Your task to perform on an android device: stop showing notifications on the lock screen Image 0: 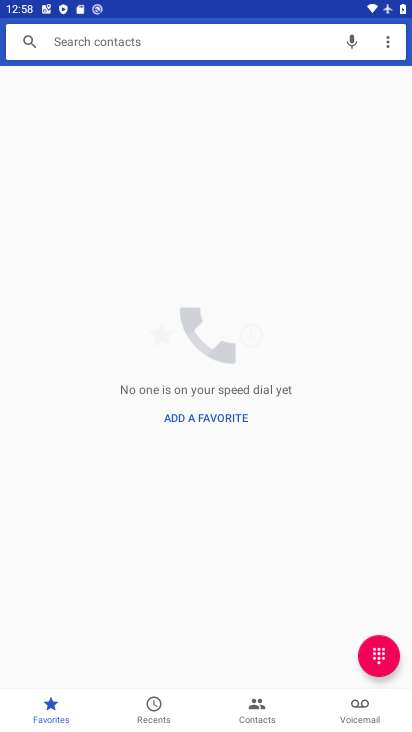
Step 0: press home button
Your task to perform on an android device: stop showing notifications on the lock screen Image 1: 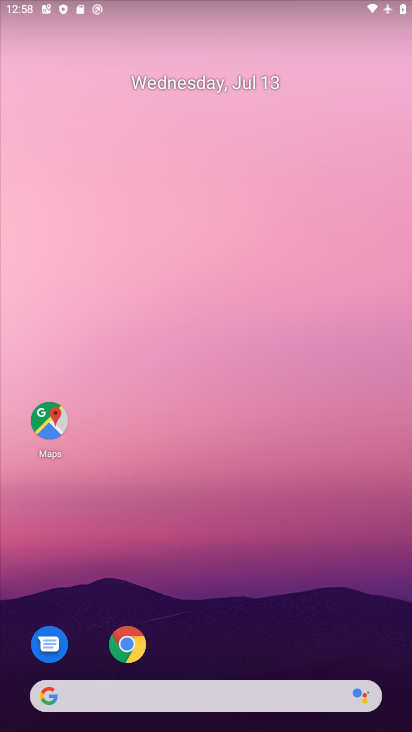
Step 1: drag from (304, 635) to (239, 145)
Your task to perform on an android device: stop showing notifications on the lock screen Image 2: 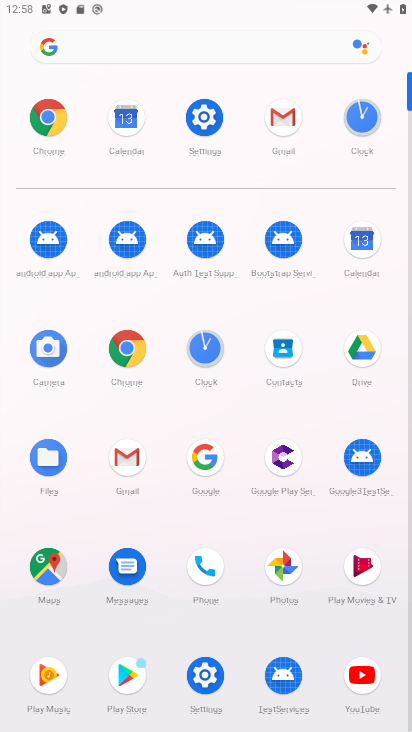
Step 2: click (202, 113)
Your task to perform on an android device: stop showing notifications on the lock screen Image 3: 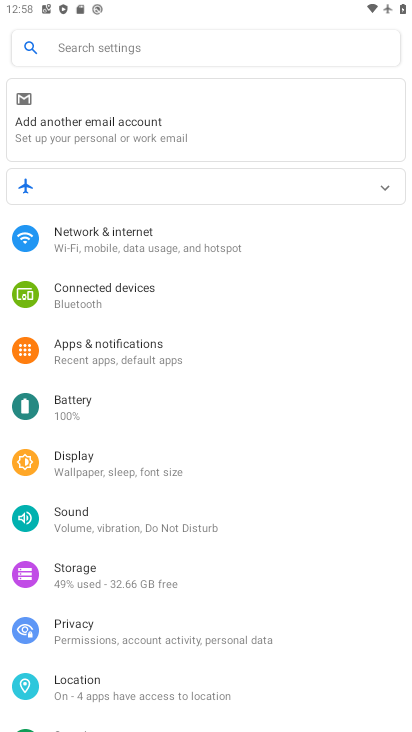
Step 3: click (150, 362)
Your task to perform on an android device: stop showing notifications on the lock screen Image 4: 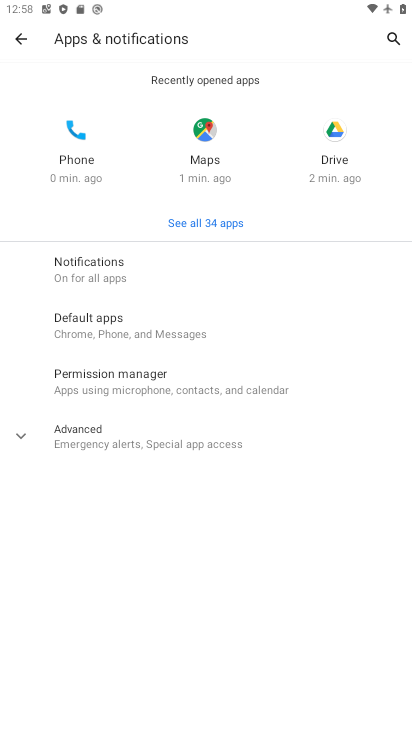
Step 4: click (123, 277)
Your task to perform on an android device: stop showing notifications on the lock screen Image 5: 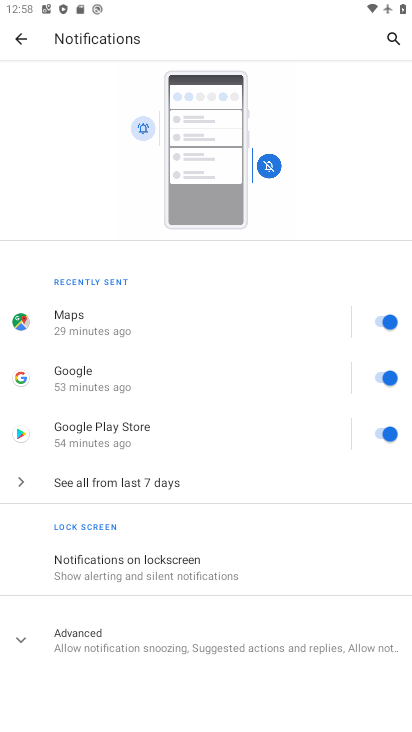
Step 5: click (166, 647)
Your task to perform on an android device: stop showing notifications on the lock screen Image 6: 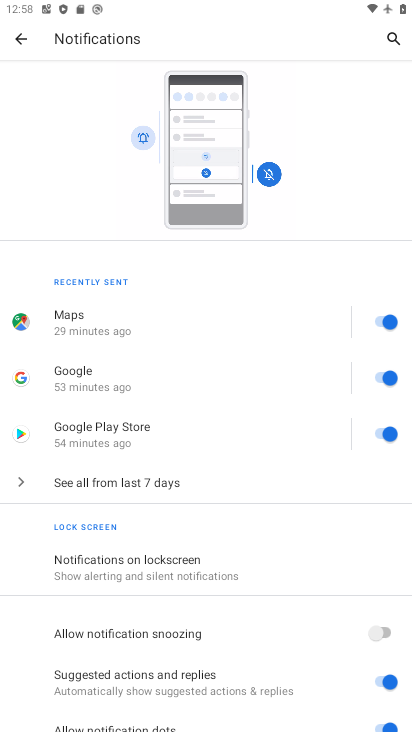
Step 6: click (225, 571)
Your task to perform on an android device: stop showing notifications on the lock screen Image 7: 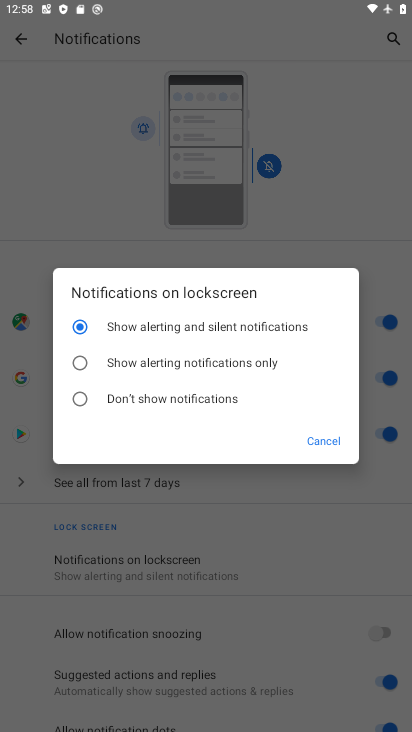
Step 7: click (215, 404)
Your task to perform on an android device: stop showing notifications on the lock screen Image 8: 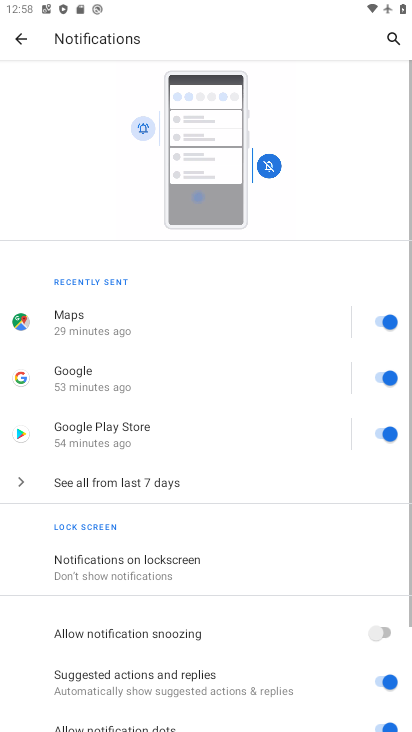
Step 8: task complete